Your task to perform on an android device: turn pop-ups off in chrome Image 0: 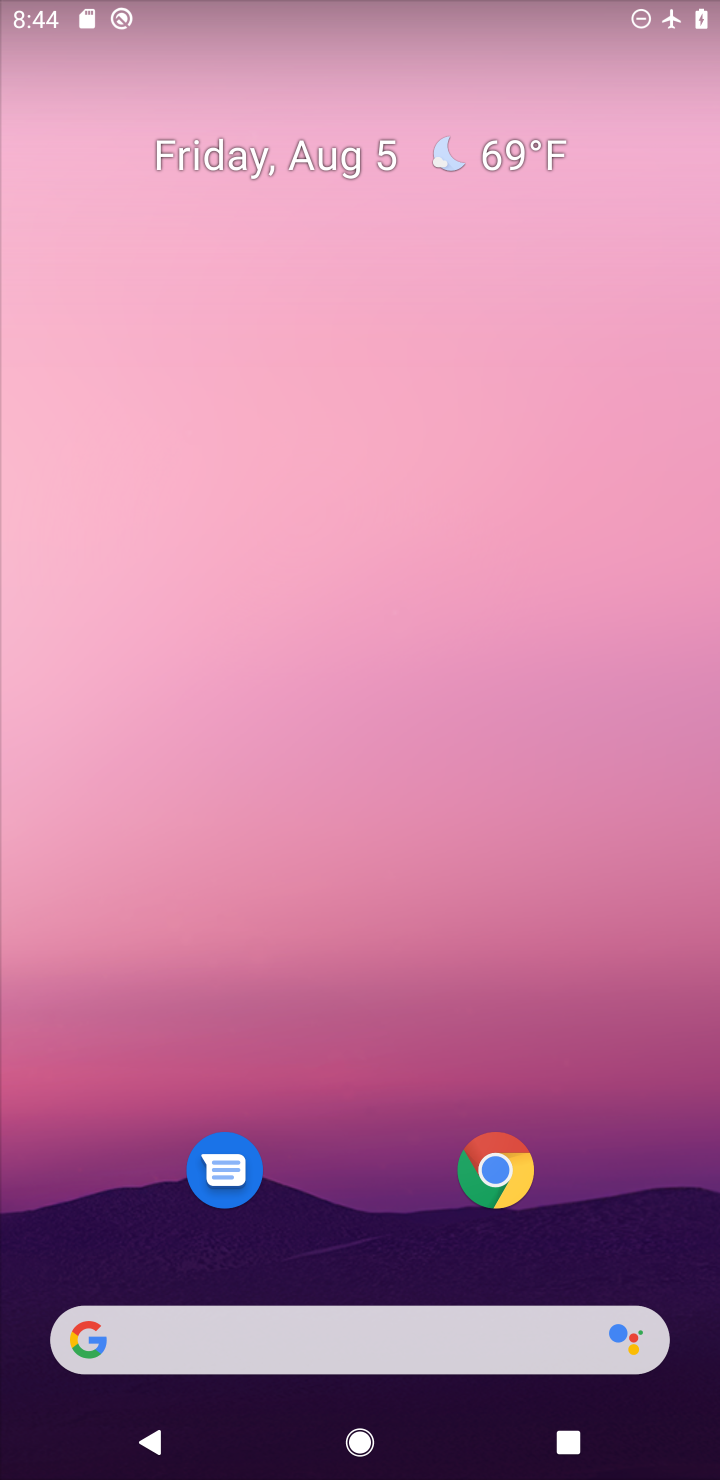
Step 0: click (498, 1171)
Your task to perform on an android device: turn pop-ups off in chrome Image 1: 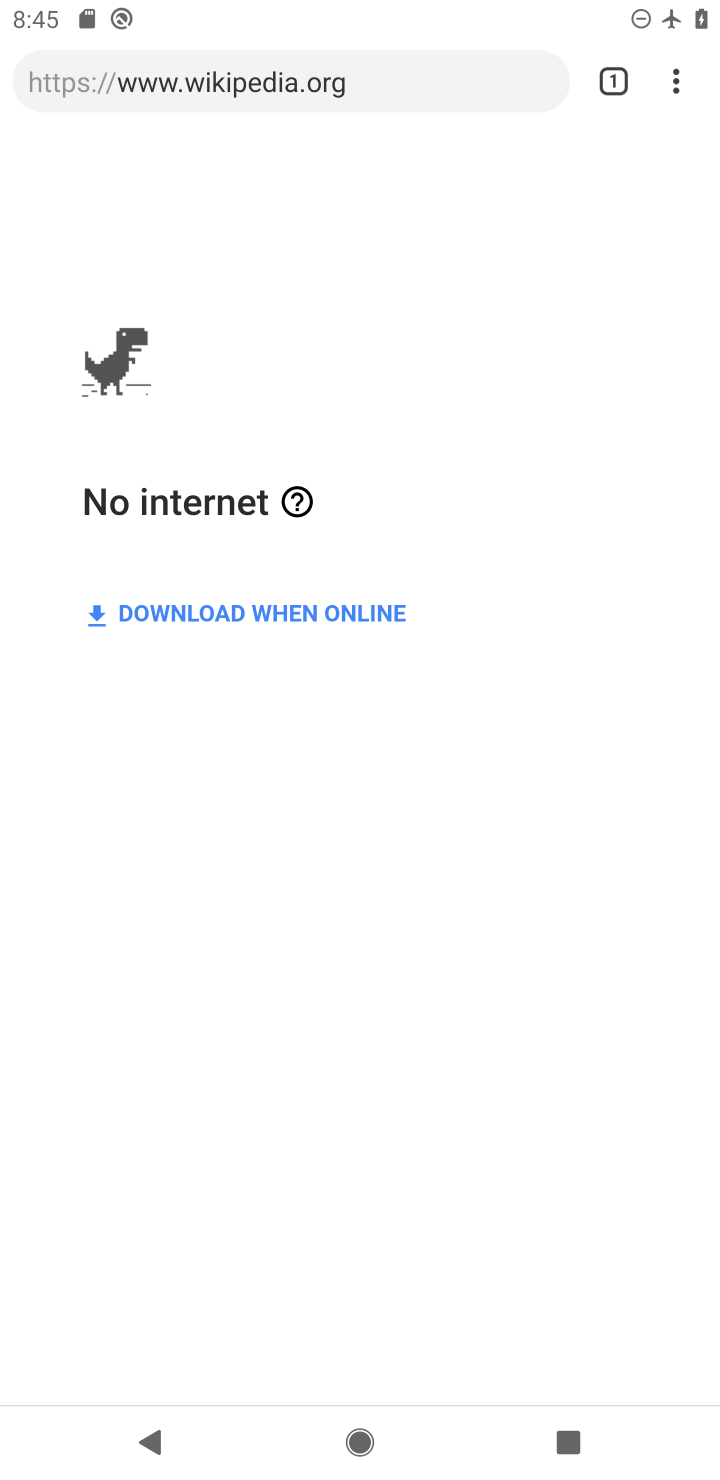
Step 1: click (665, 91)
Your task to perform on an android device: turn pop-ups off in chrome Image 2: 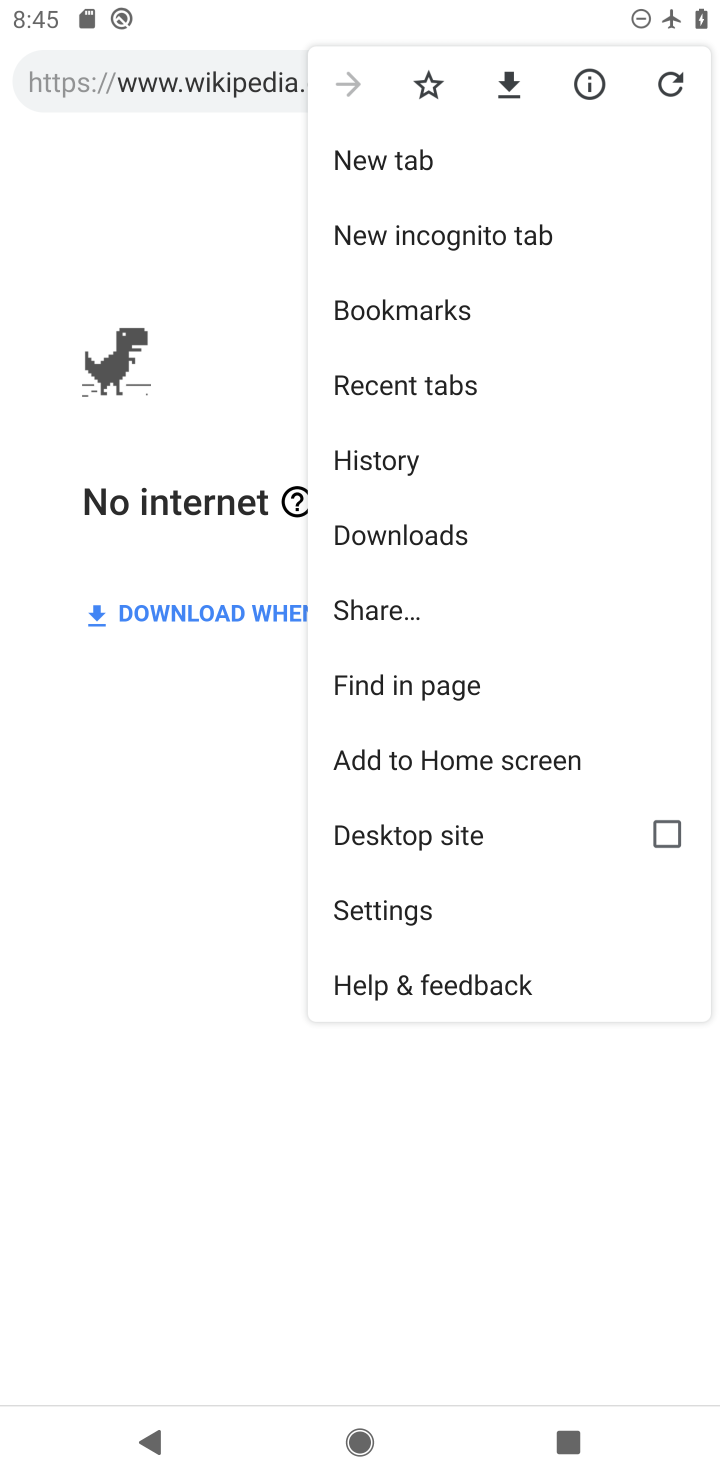
Step 2: click (397, 902)
Your task to perform on an android device: turn pop-ups off in chrome Image 3: 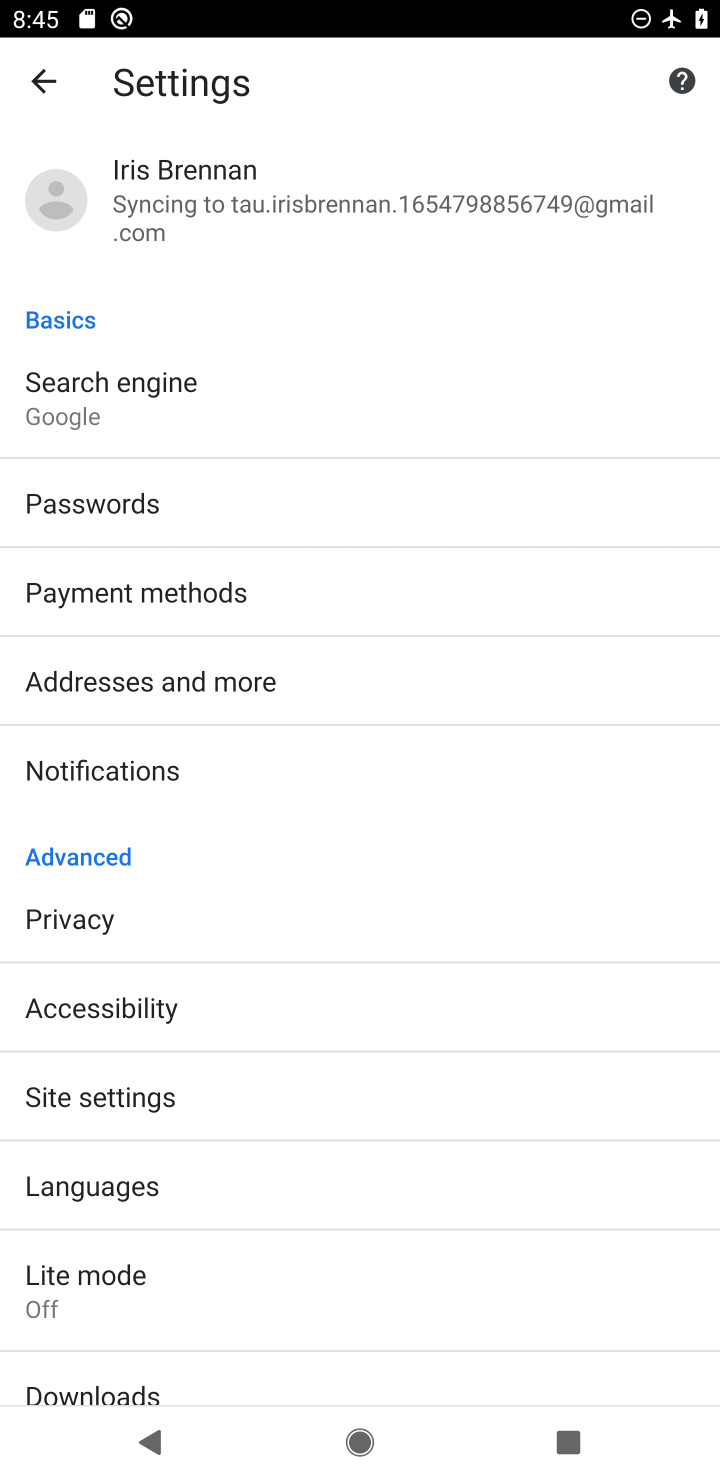
Step 3: drag from (375, 1203) to (378, 637)
Your task to perform on an android device: turn pop-ups off in chrome Image 4: 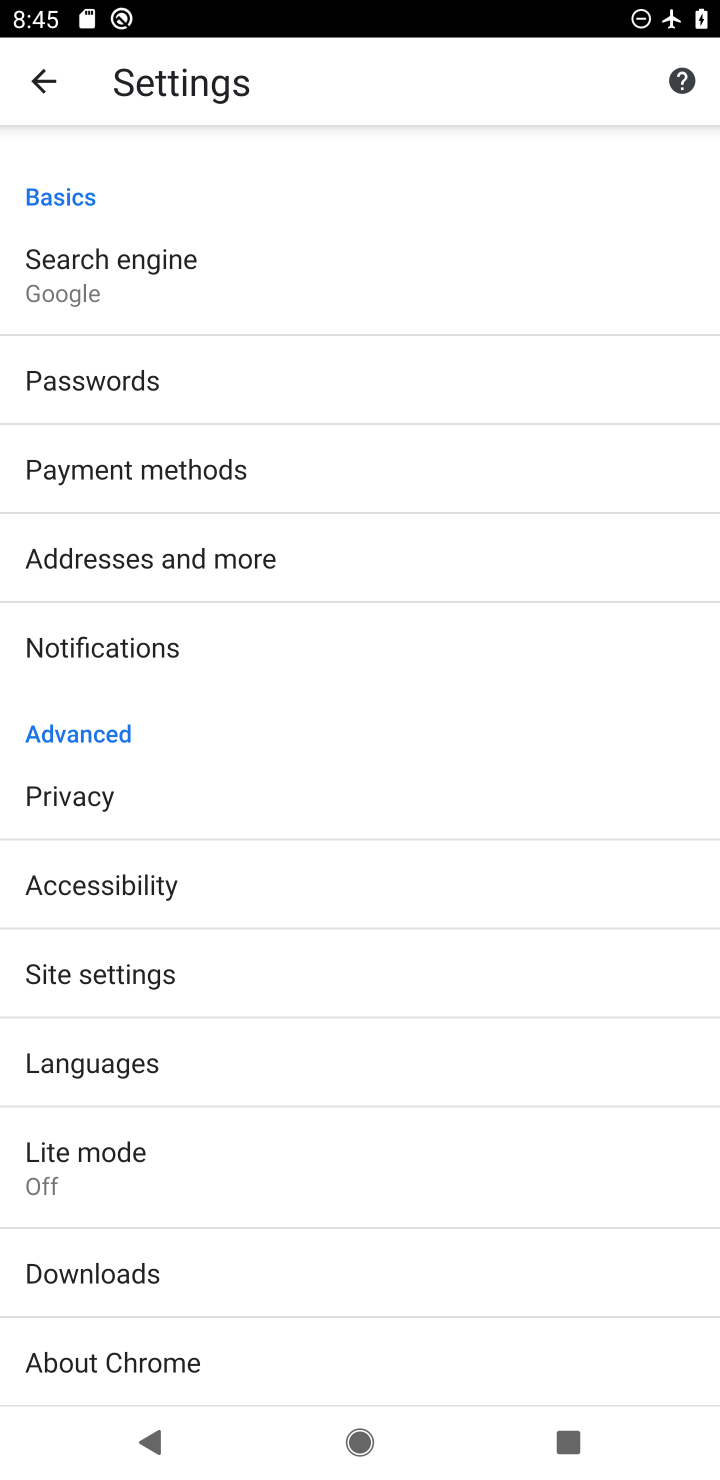
Step 4: click (84, 965)
Your task to perform on an android device: turn pop-ups off in chrome Image 5: 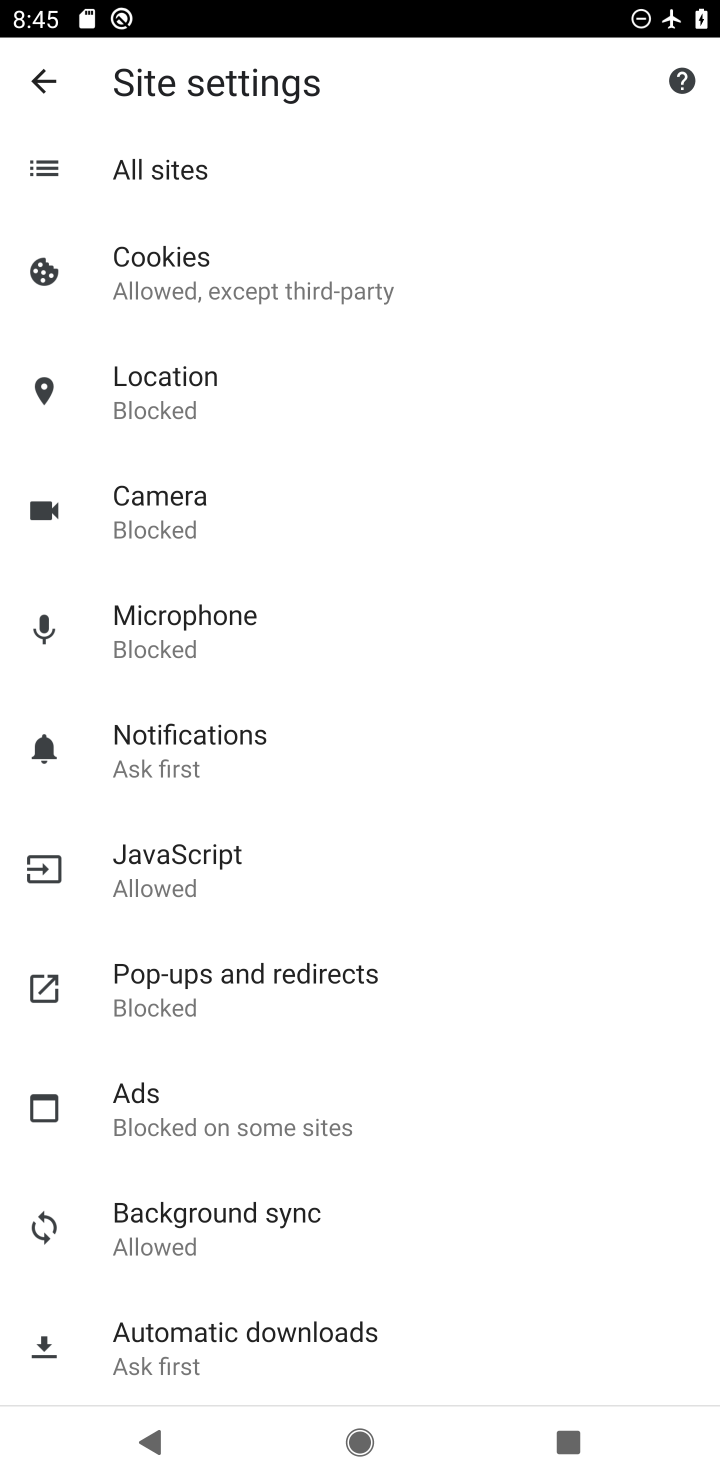
Step 5: click (159, 978)
Your task to perform on an android device: turn pop-ups off in chrome Image 6: 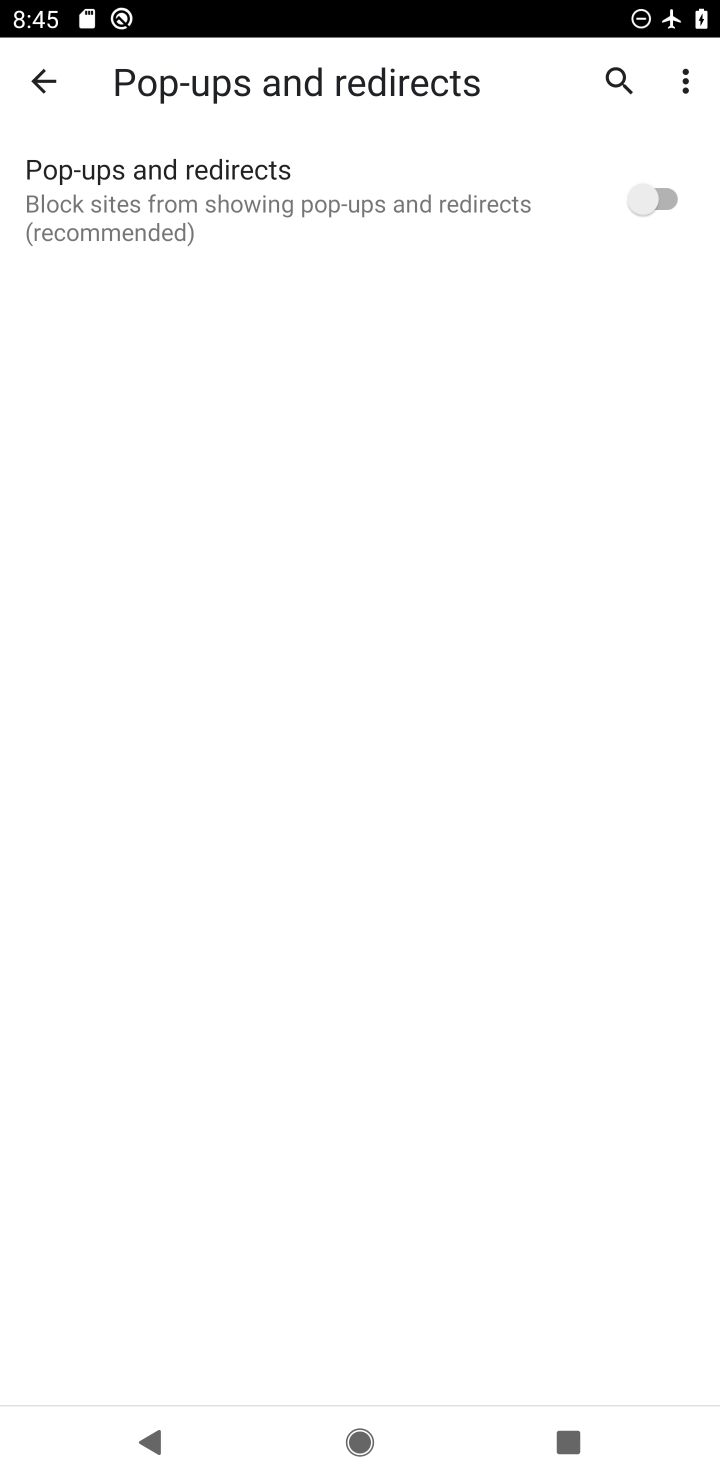
Step 6: task complete